Your task to perform on an android device: check the backup settings in the google photos Image 0: 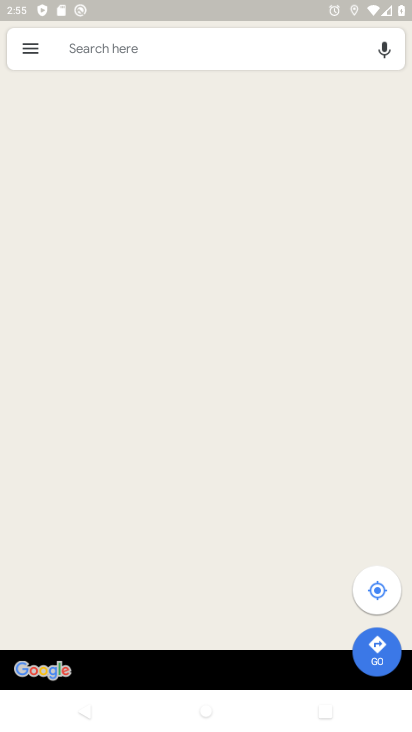
Step 0: drag from (153, 192) to (196, 168)
Your task to perform on an android device: check the backup settings in the google photos Image 1: 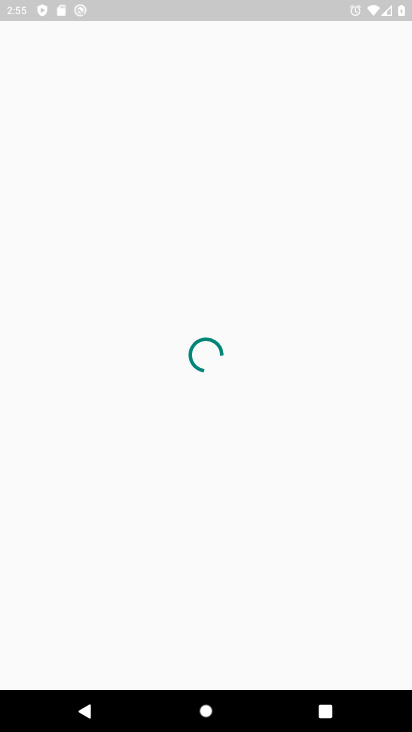
Step 1: press home button
Your task to perform on an android device: check the backup settings in the google photos Image 2: 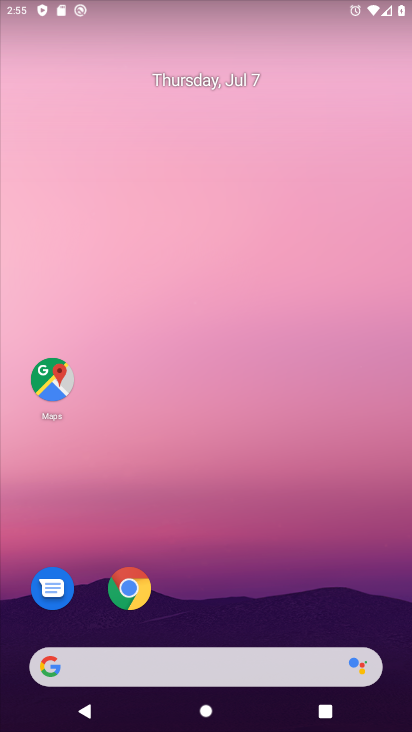
Step 2: drag from (236, 654) to (216, 209)
Your task to perform on an android device: check the backup settings in the google photos Image 3: 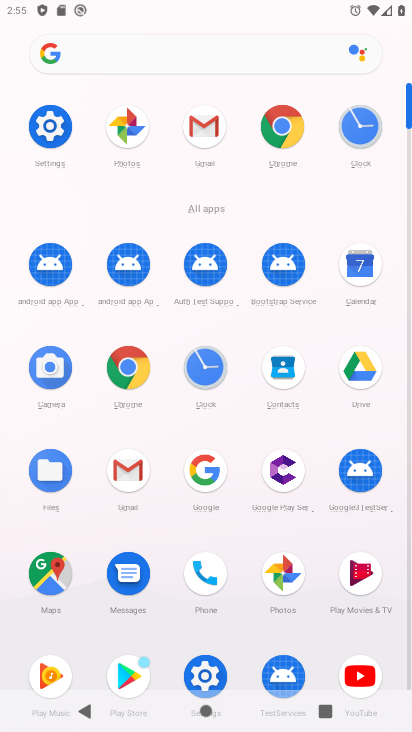
Step 3: click (129, 128)
Your task to perform on an android device: check the backup settings in the google photos Image 4: 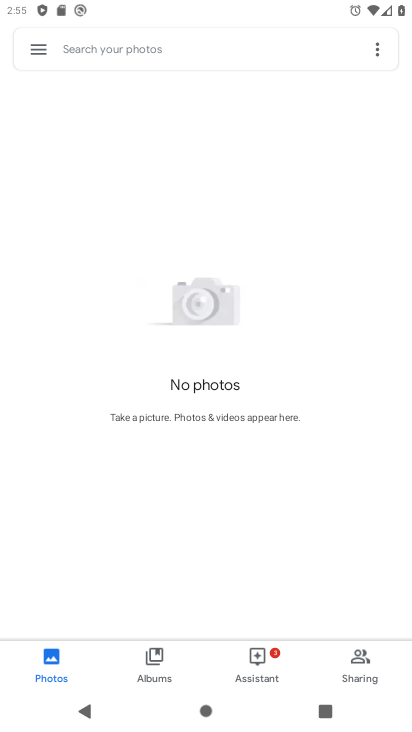
Step 4: click (36, 51)
Your task to perform on an android device: check the backup settings in the google photos Image 5: 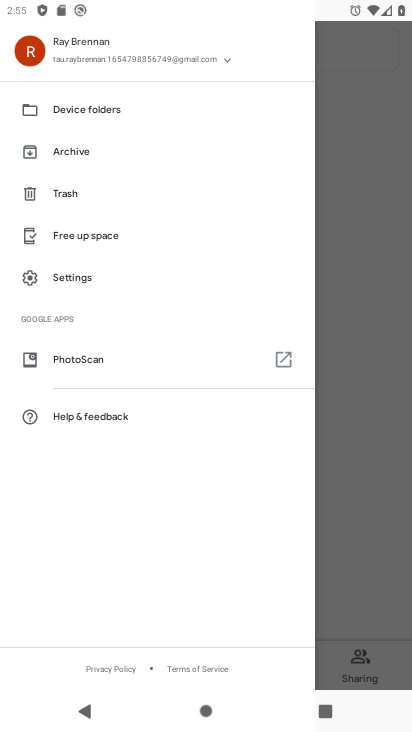
Step 5: click (71, 281)
Your task to perform on an android device: check the backup settings in the google photos Image 6: 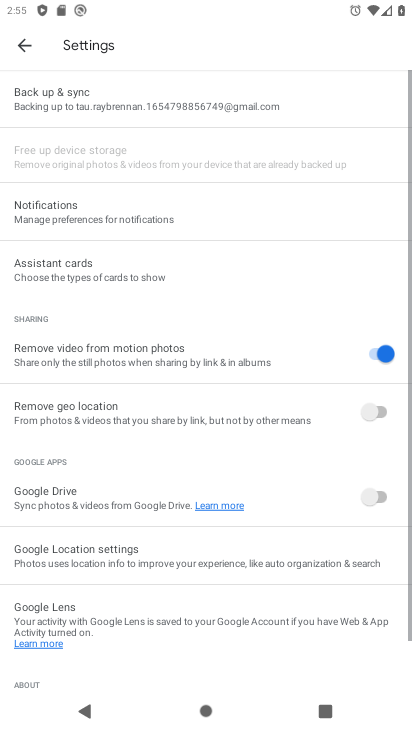
Step 6: click (83, 89)
Your task to perform on an android device: check the backup settings in the google photos Image 7: 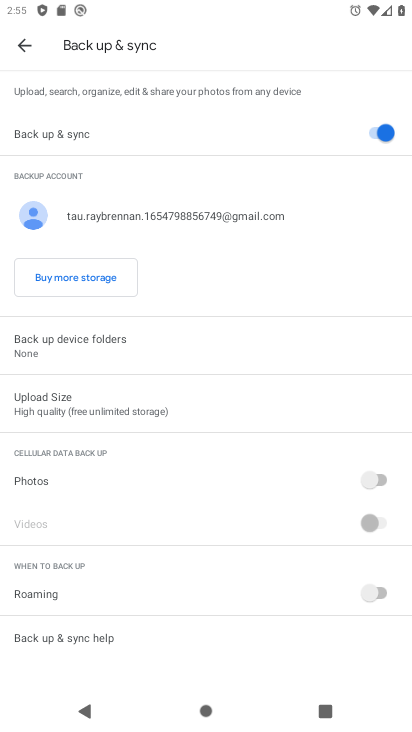
Step 7: task complete